Your task to perform on an android device: Show me recent news Image 0: 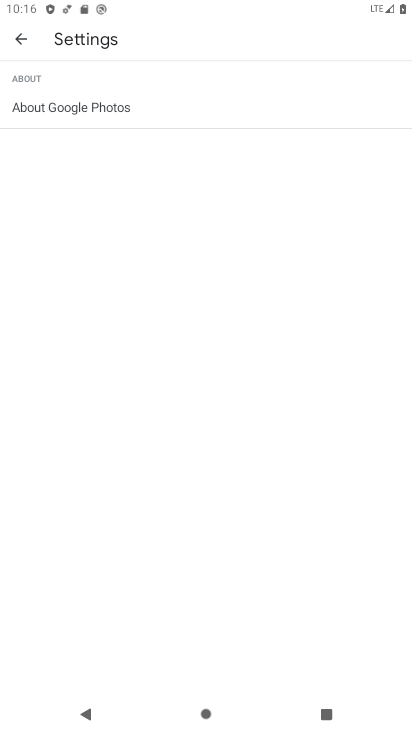
Step 0: press home button
Your task to perform on an android device: Show me recent news Image 1: 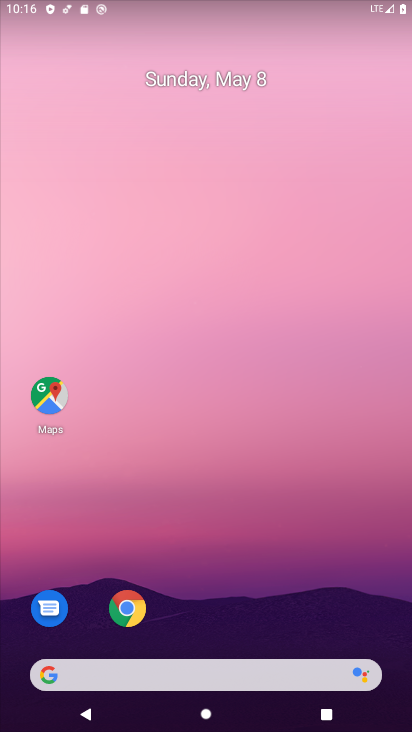
Step 1: click (125, 609)
Your task to perform on an android device: Show me recent news Image 2: 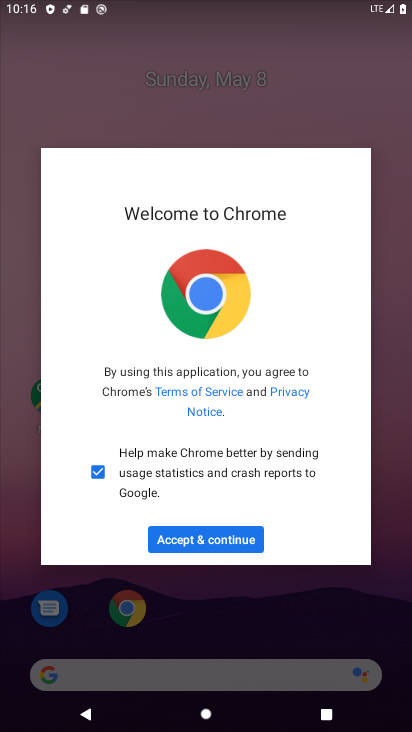
Step 2: click (194, 535)
Your task to perform on an android device: Show me recent news Image 3: 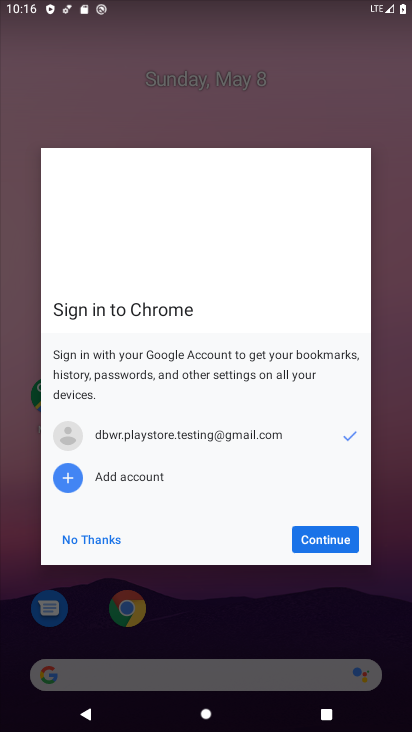
Step 3: click (336, 543)
Your task to perform on an android device: Show me recent news Image 4: 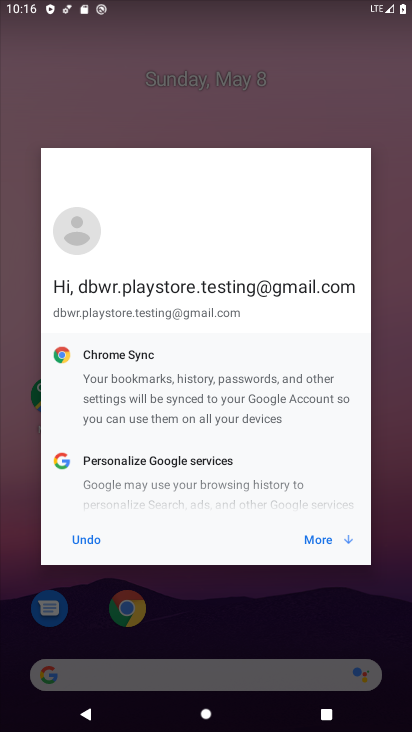
Step 4: click (323, 535)
Your task to perform on an android device: Show me recent news Image 5: 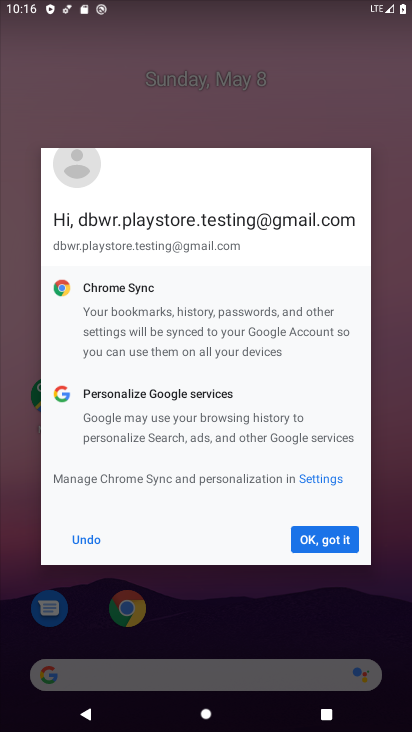
Step 5: click (323, 535)
Your task to perform on an android device: Show me recent news Image 6: 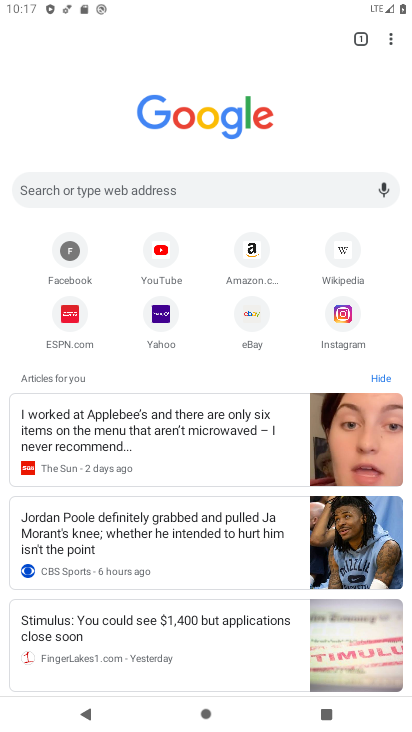
Step 6: click (64, 193)
Your task to perform on an android device: Show me recent news Image 7: 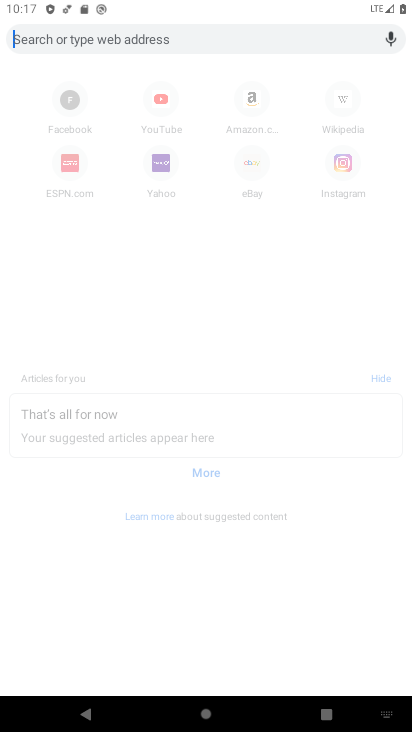
Step 7: type "recent news"
Your task to perform on an android device: Show me recent news Image 8: 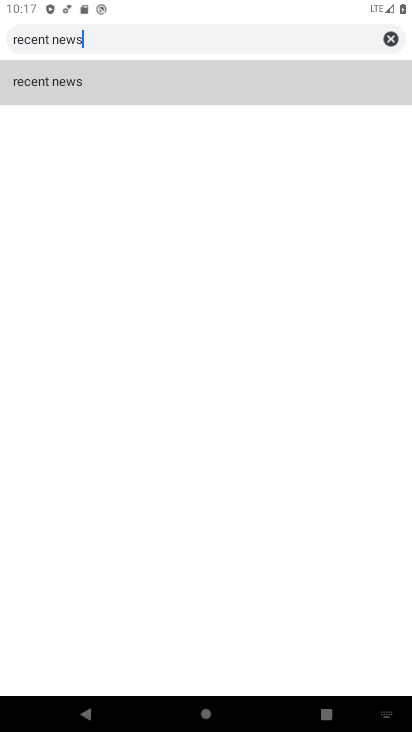
Step 8: click (92, 99)
Your task to perform on an android device: Show me recent news Image 9: 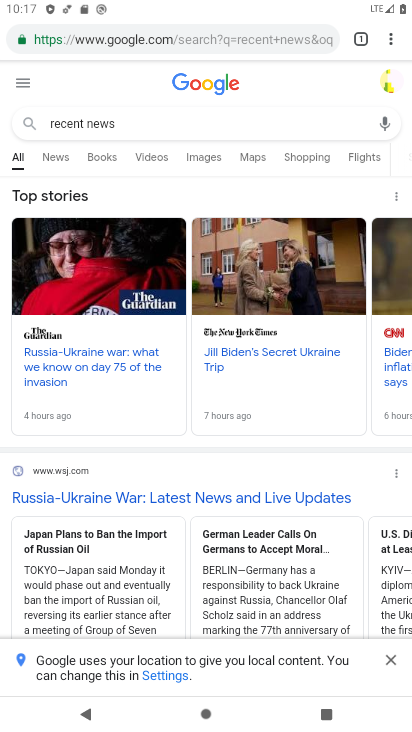
Step 9: task complete